Your task to perform on an android device: Search for the most popular coffee table on Crate & Barrel Image 0: 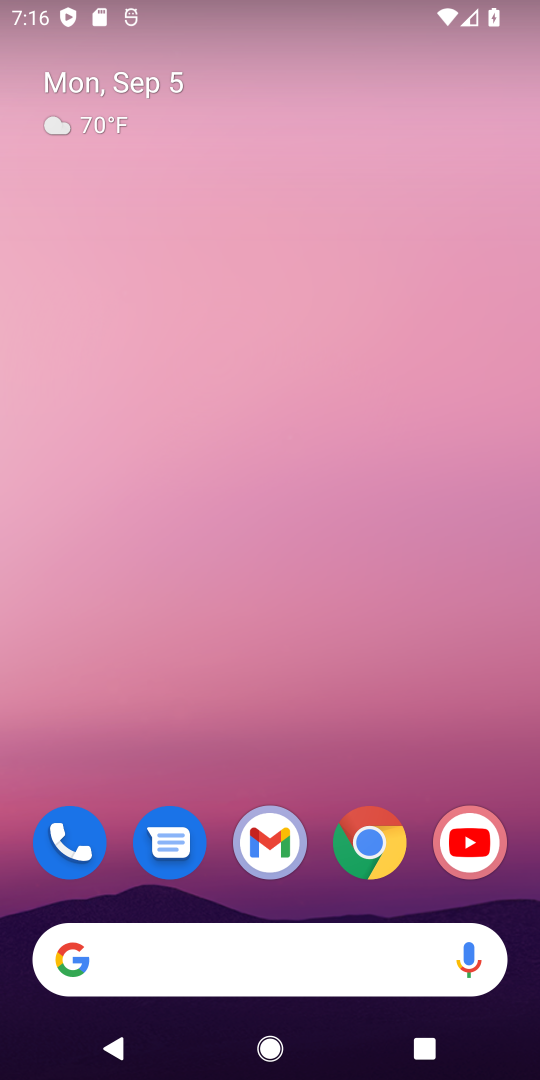
Step 0: click (370, 838)
Your task to perform on an android device: Search for the most popular coffee table on Crate & Barrel Image 1: 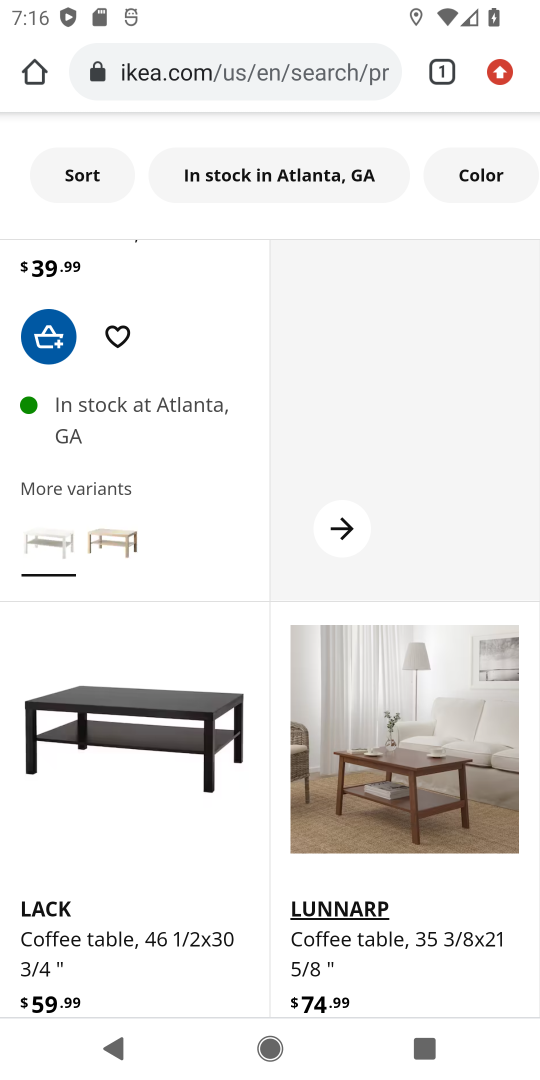
Step 1: click (352, 74)
Your task to perform on an android device: Search for the most popular coffee table on Crate & Barrel Image 2: 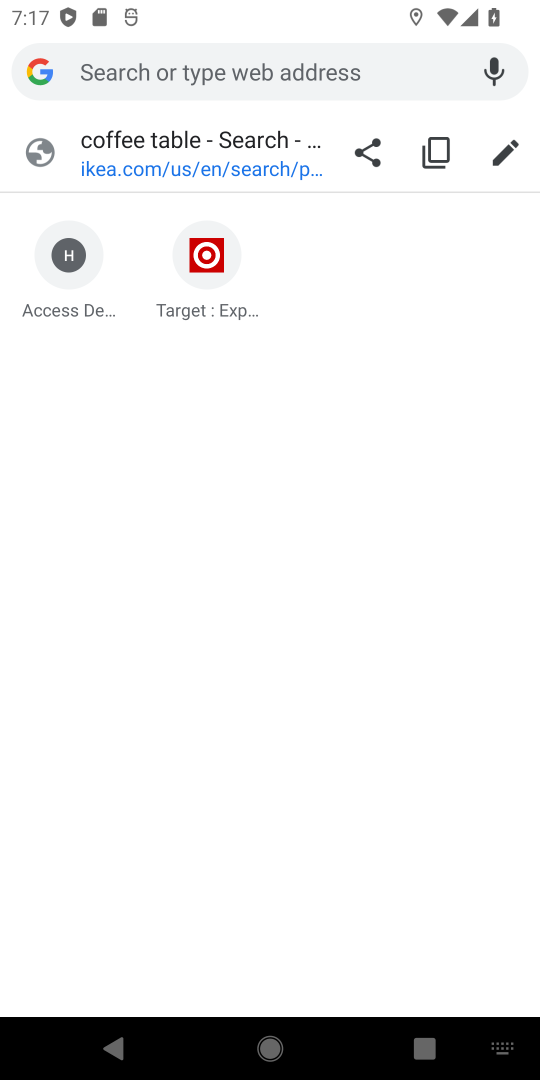
Step 2: type "Crate & Barrel"
Your task to perform on an android device: Search for the most popular coffee table on Crate & Barrel Image 3: 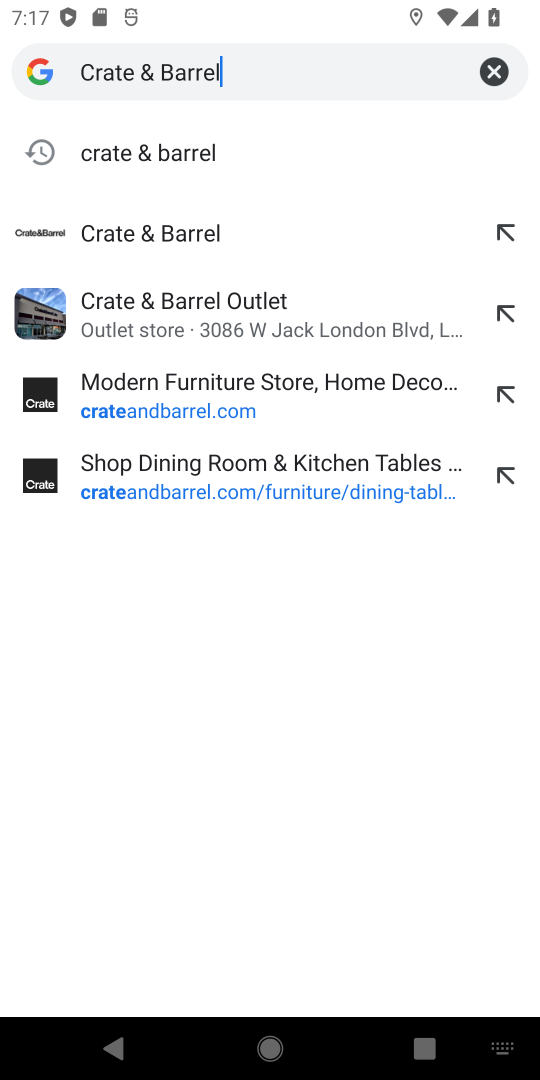
Step 3: click (224, 240)
Your task to perform on an android device: Search for the most popular coffee table on Crate & Barrel Image 4: 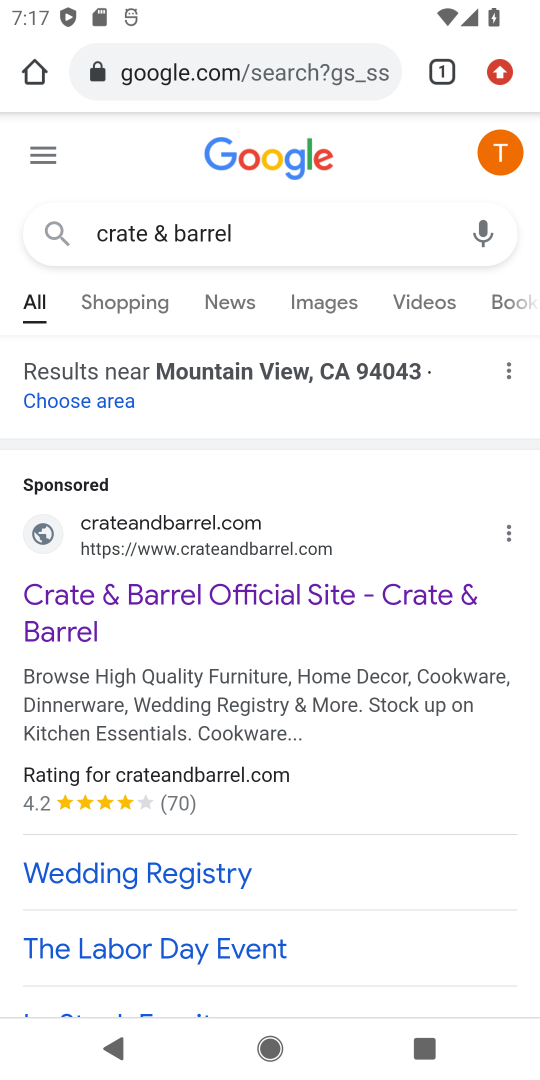
Step 4: click (265, 630)
Your task to perform on an android device: Search for the most popular coffee table on Crate & Barrel Image 5: 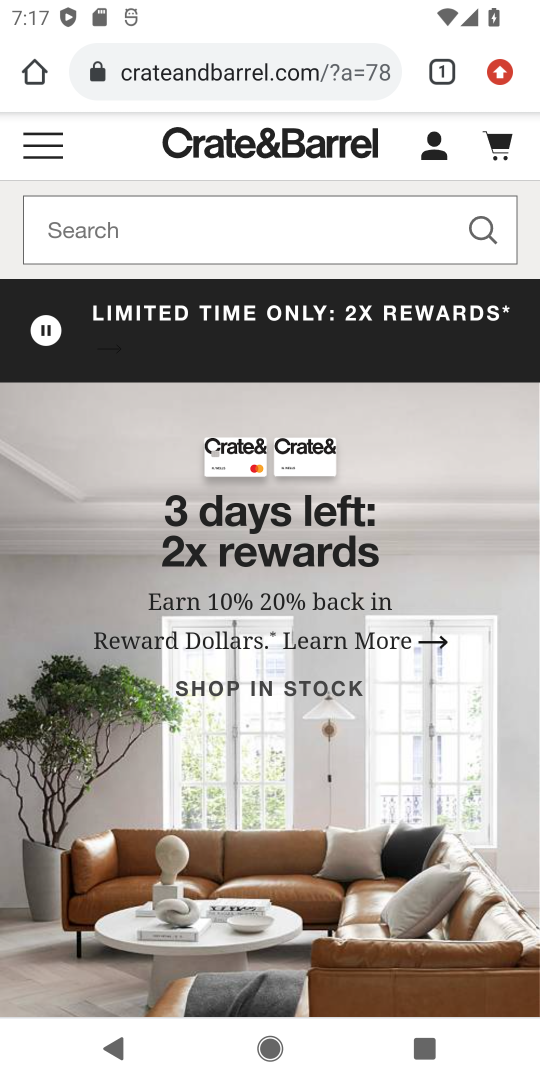
Step 5: click (277, 234)
Your task to perform on an android device: Search for the most popular coffee table on Crate & Barrel Image 6: 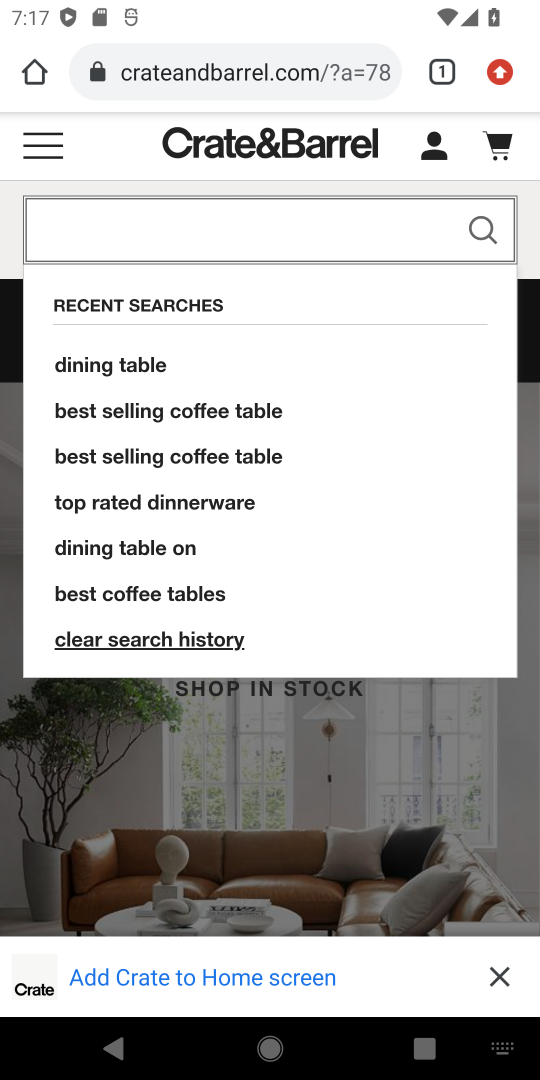
Step 6: type "most popular coffee table"
Your task to perform on an android device: Search for the most popular coffee table on Crate & Barrel Image 7: 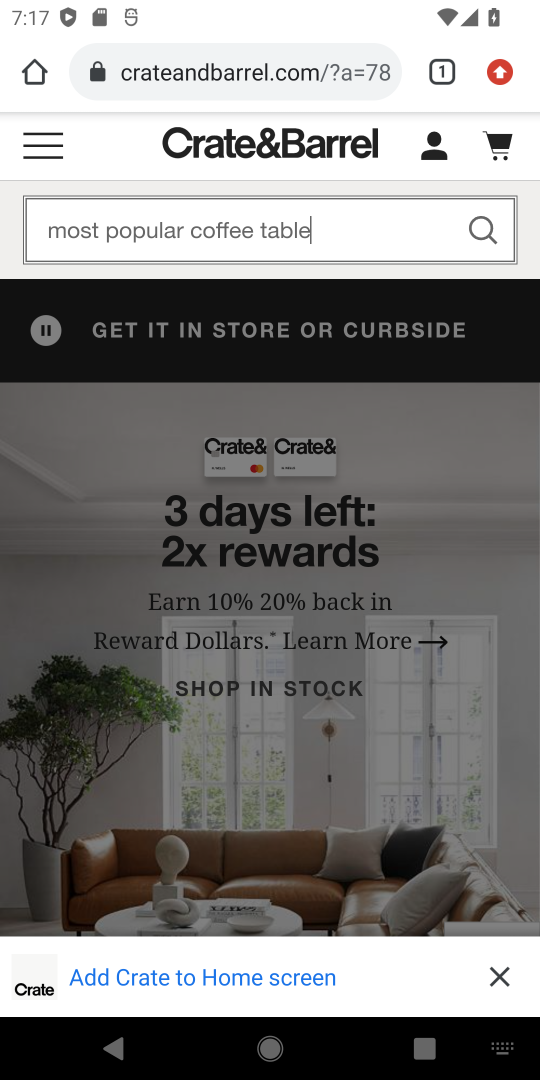
Step 7: click (474, 233)
Your task to perform on an android device: Search for the most popular coffee table on Crate & Barrel Image 8: 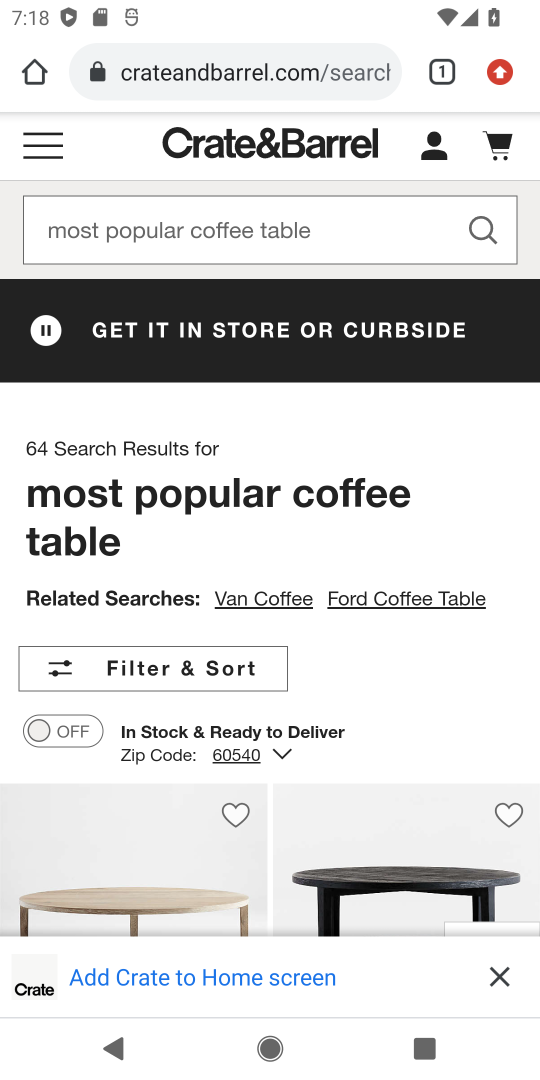
Step 8: task complete